Your task to perform on an android device: Show the shopping cart on target.com. Add razer nari to the cart on target.com, then select checkout. Image 0: 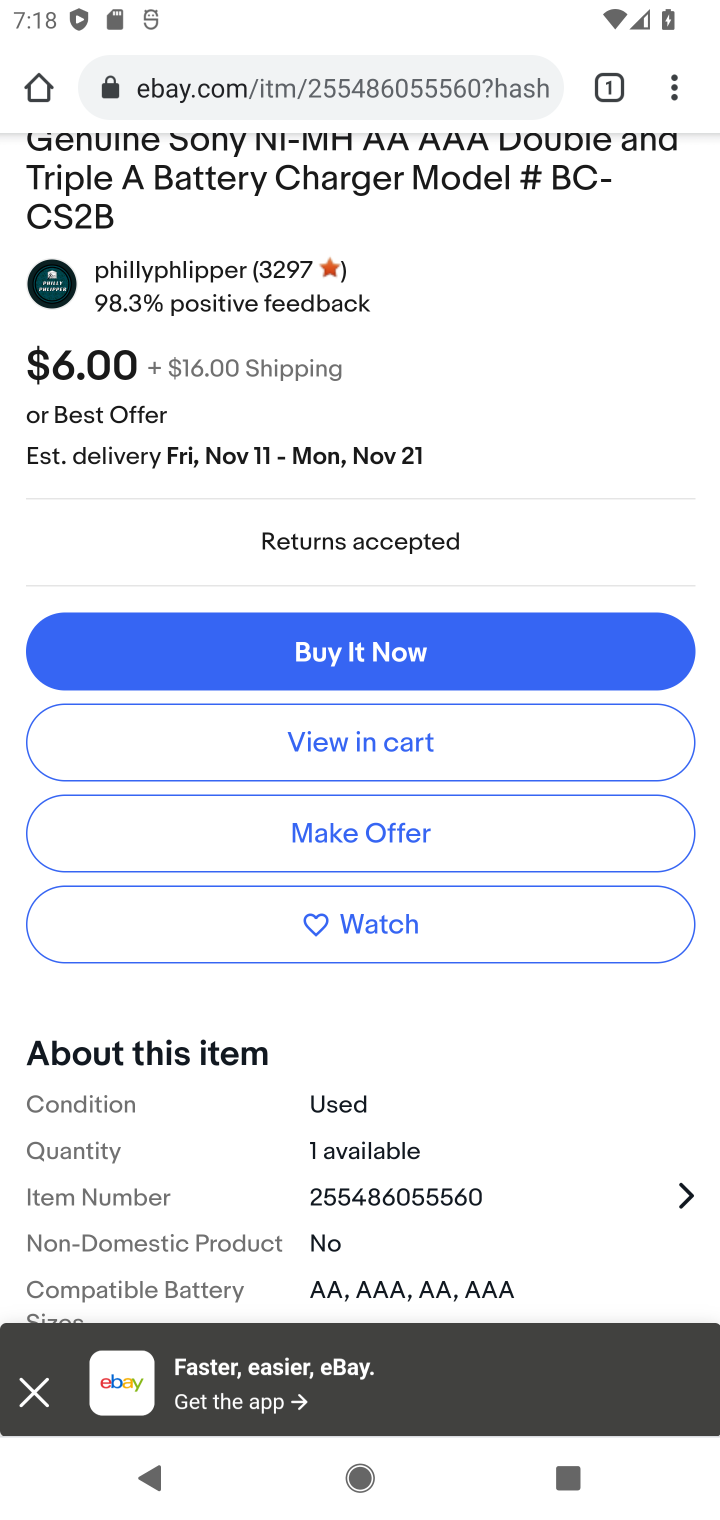
Step 0: press home button
Your task to perform on an android device: Show the shopping cart on target.com. Add razer nari to the cart on target.com, then select checkout. Image 1: 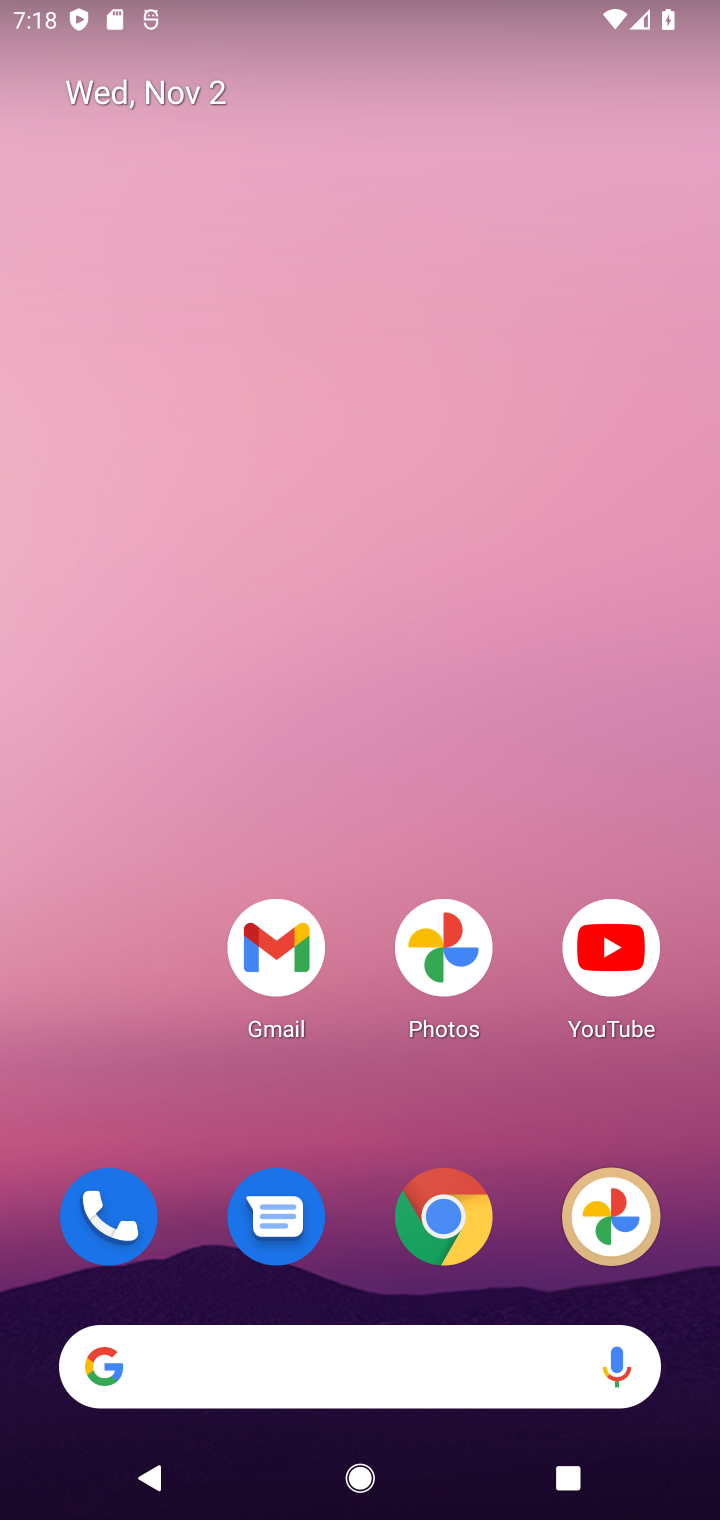
Step 1: click (445, 1222)
Your task to perform on an android device: Show the shopping cart on target.com. Add razer nari to the cart on target.com, then select checkout. Image 2: 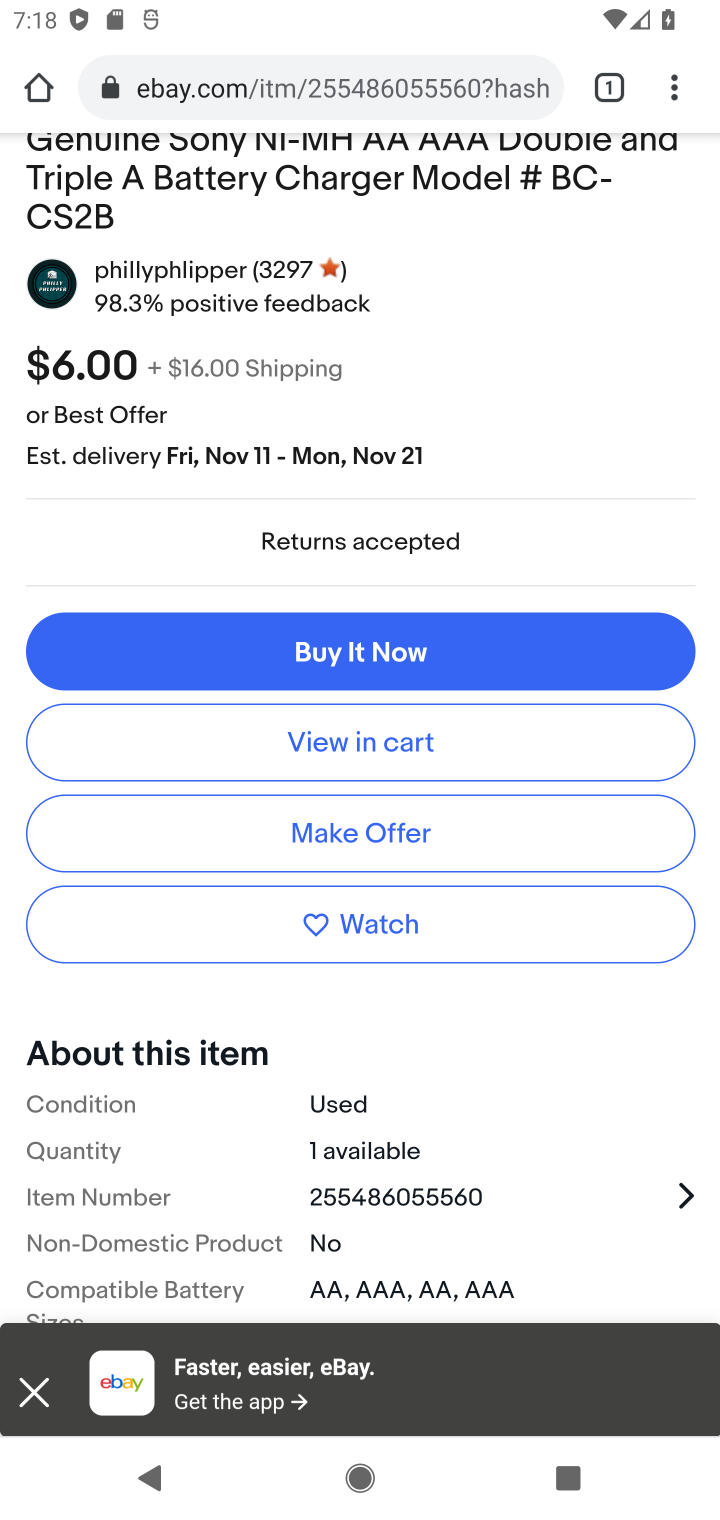
Step 2: click (307, 78)
Your task to perform on an android device: Show the shopping cart on target.com. Add razer nari to the cart on target.com, then select checkout. Image 3: 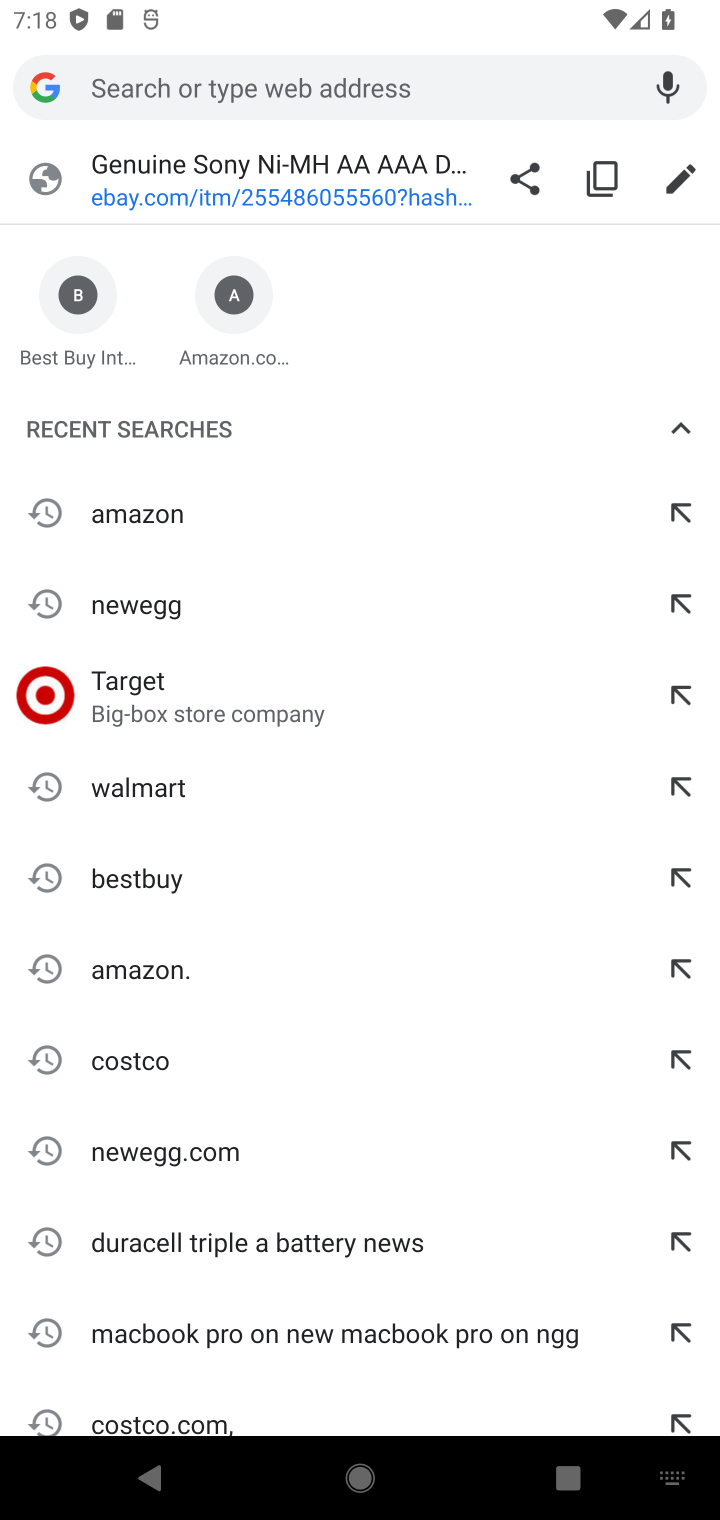
Step 3: type "target.com"
Your task to perform on an android device: Show the shopping cart on target.com. Add razer nari to the cart on target.com, then select checkout. Image 4: 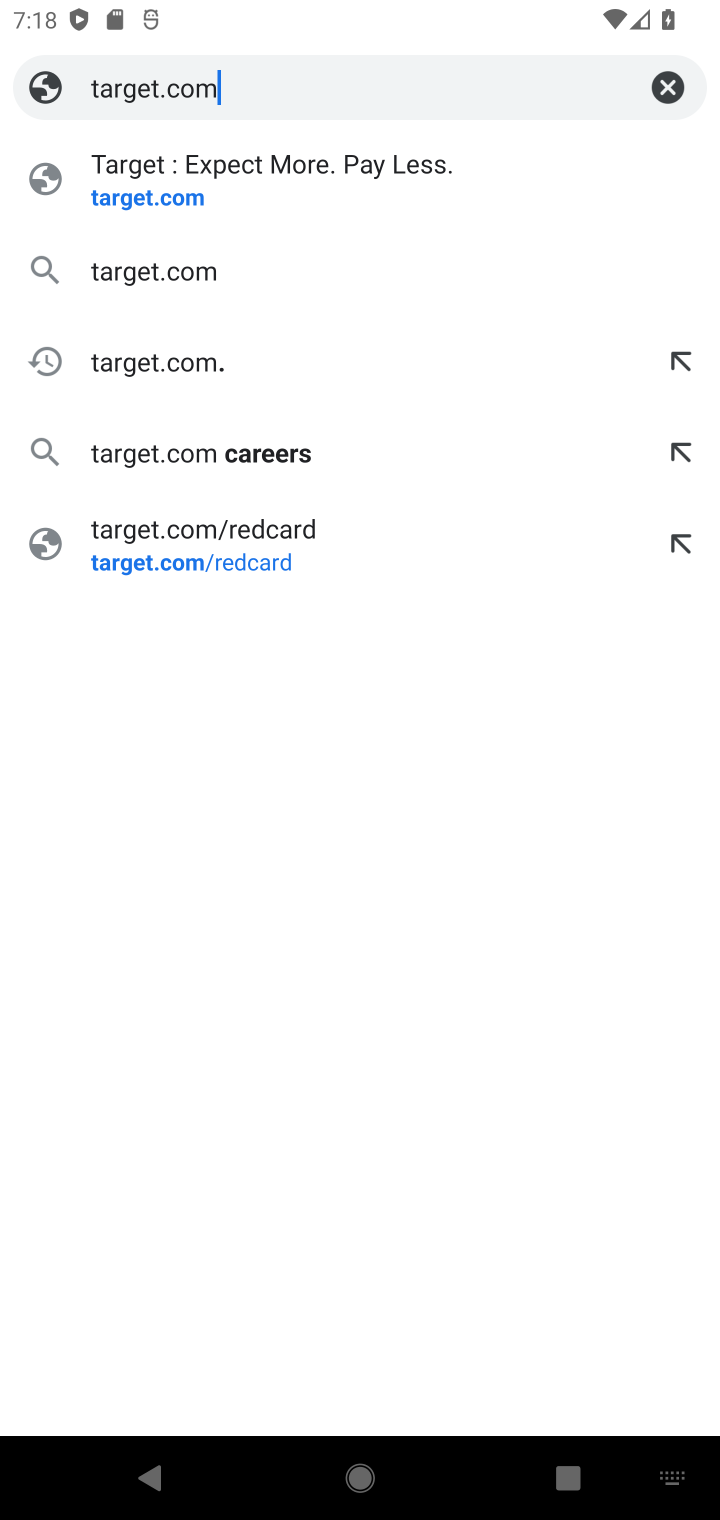
Step 4: click (426, 163)
Your task to perform on an android device: Show the shopping cart on target.com. Add razer nari to the cart on target.com, then select checkout. Image 5: 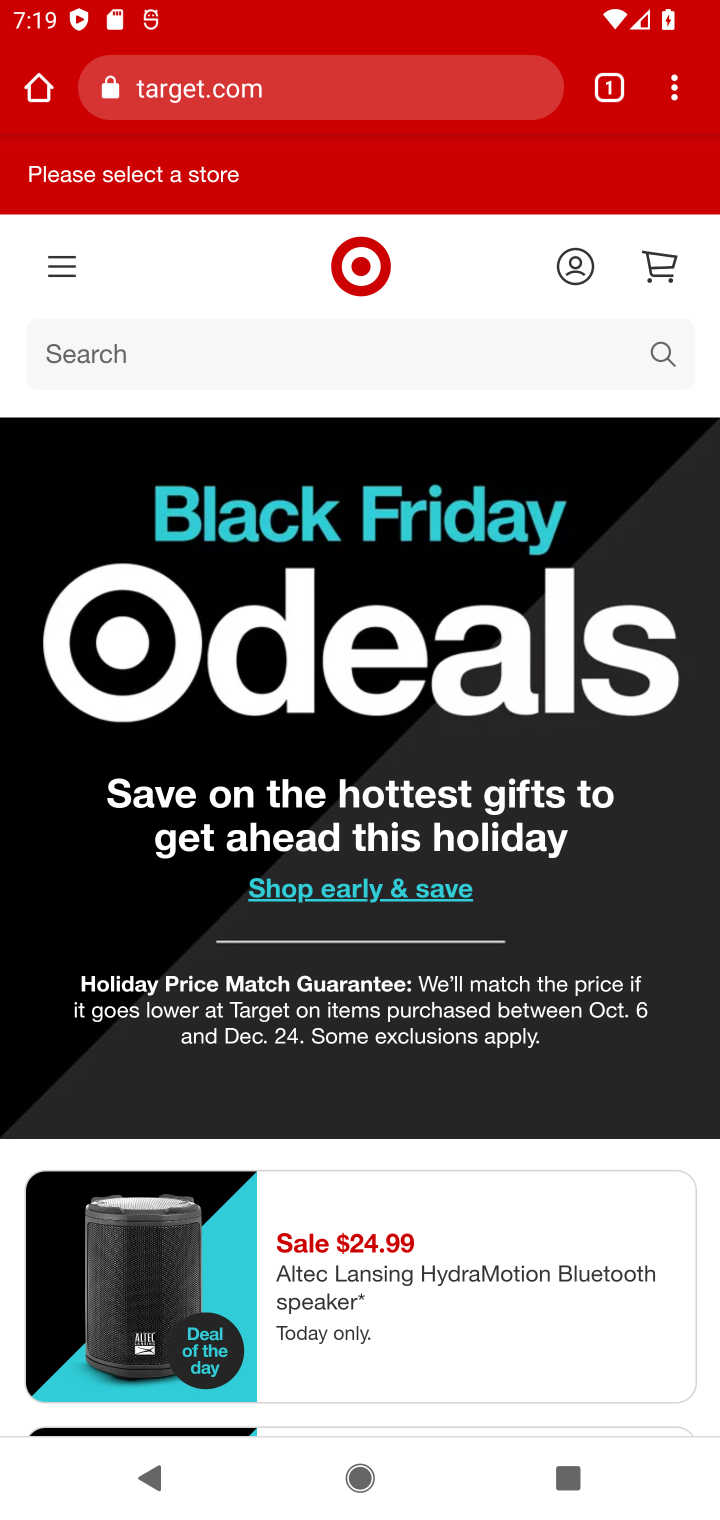
Step 5: click (305, 343)
Your task to perform on an android device: Show the shopping cart on target.com. Add razer nari to the cart on target.com, then select checkout. Image 6: 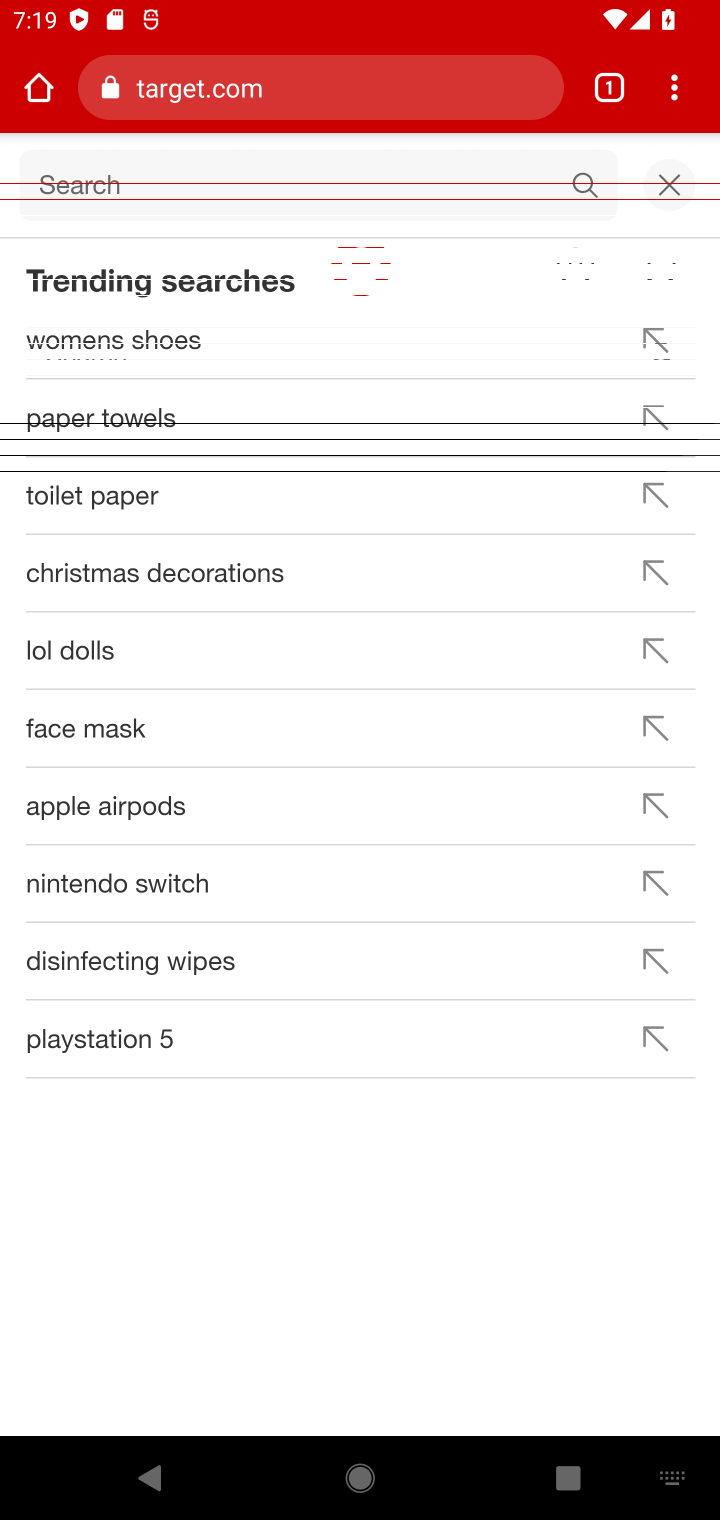
Step 6: type "razer nari"
Your task to perform on an android device: Show the shopping cart on target.com. Add razer nari to the cart on target.com, then select checkout. Image 7: 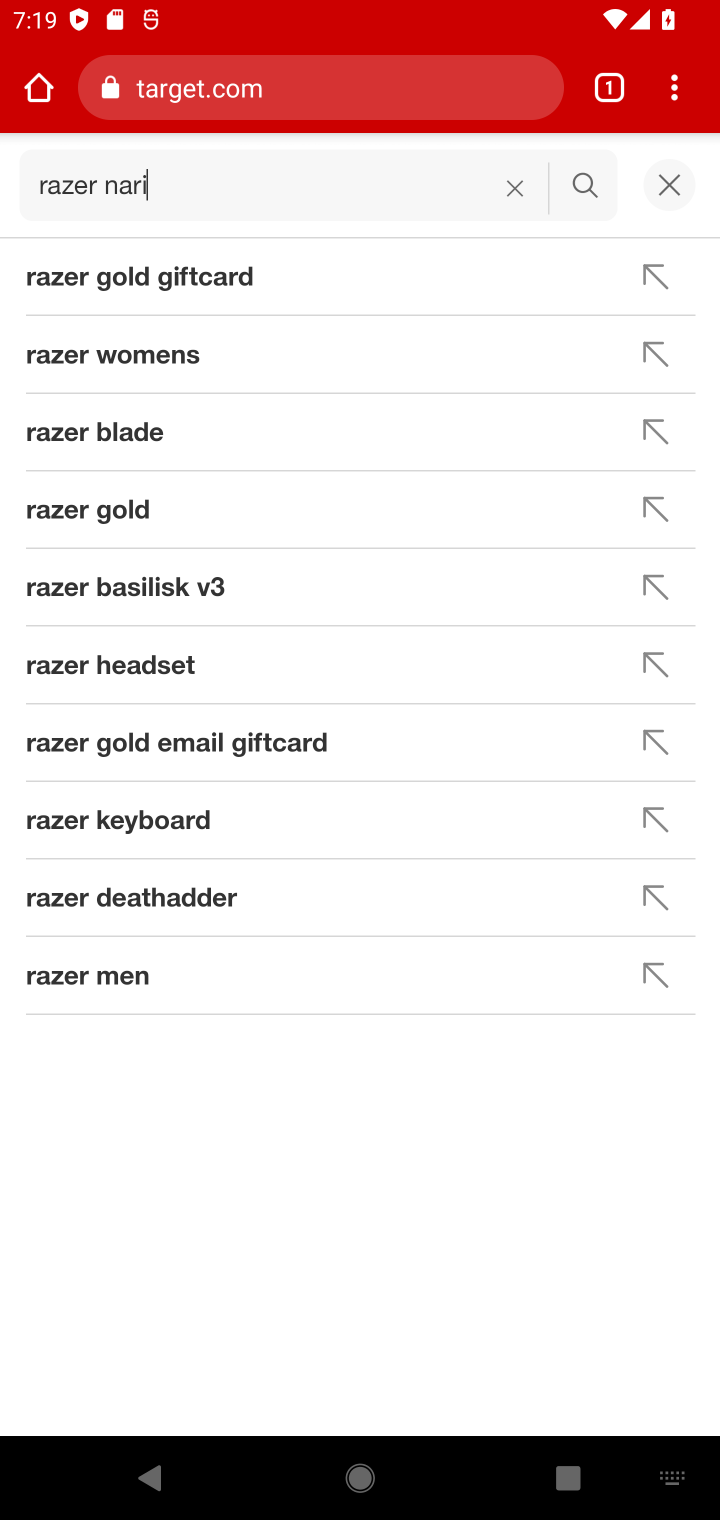
Step 7: press enter
Your task to perform on an android device: Show the shopping cart on target.com. Add razer nari to the cart on target.com, then select checkout. Image 8: 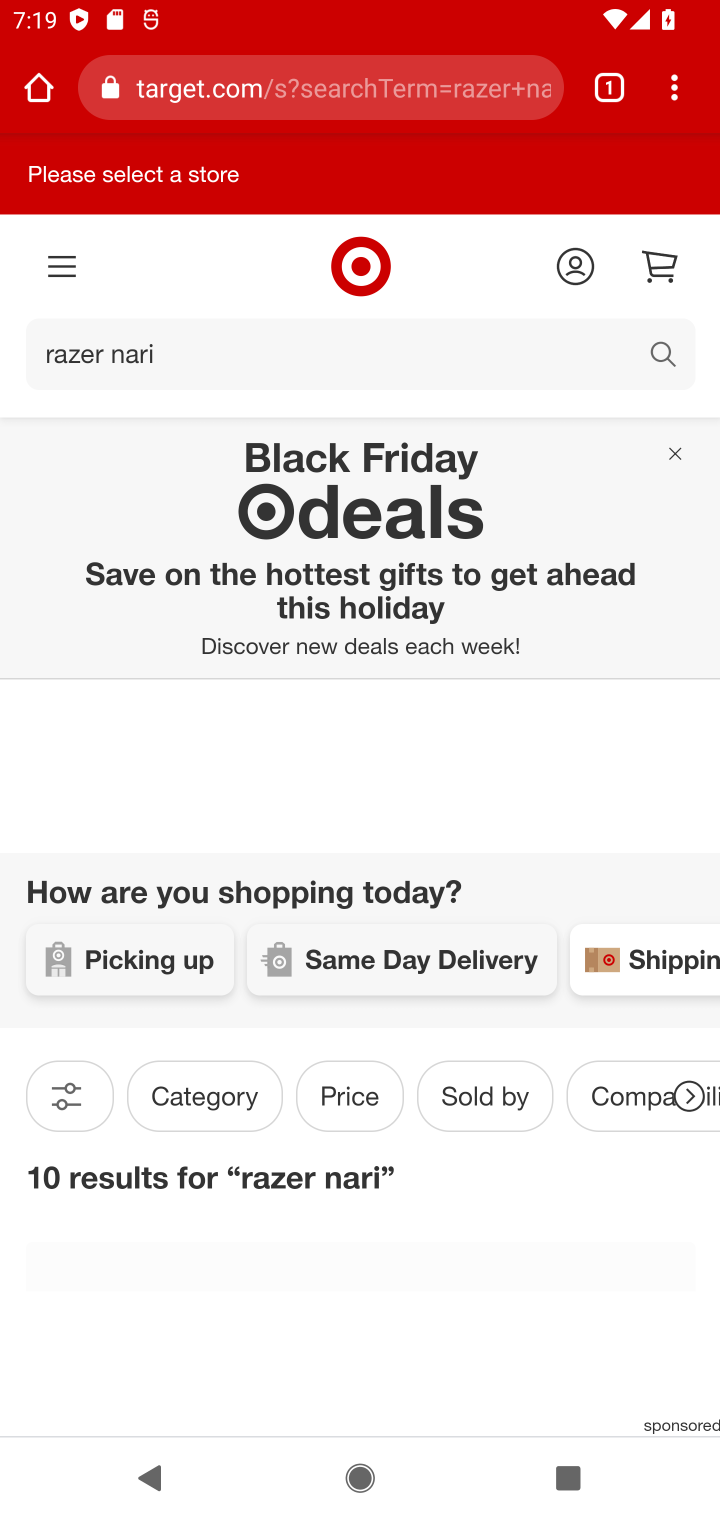
Step 8: drag from (306, 1226) to (56, 153)
Your task to perform on an android device: Show the shopping cart on target.com. Add razer nari to the cart on target.com, then select checkout. Image 9: 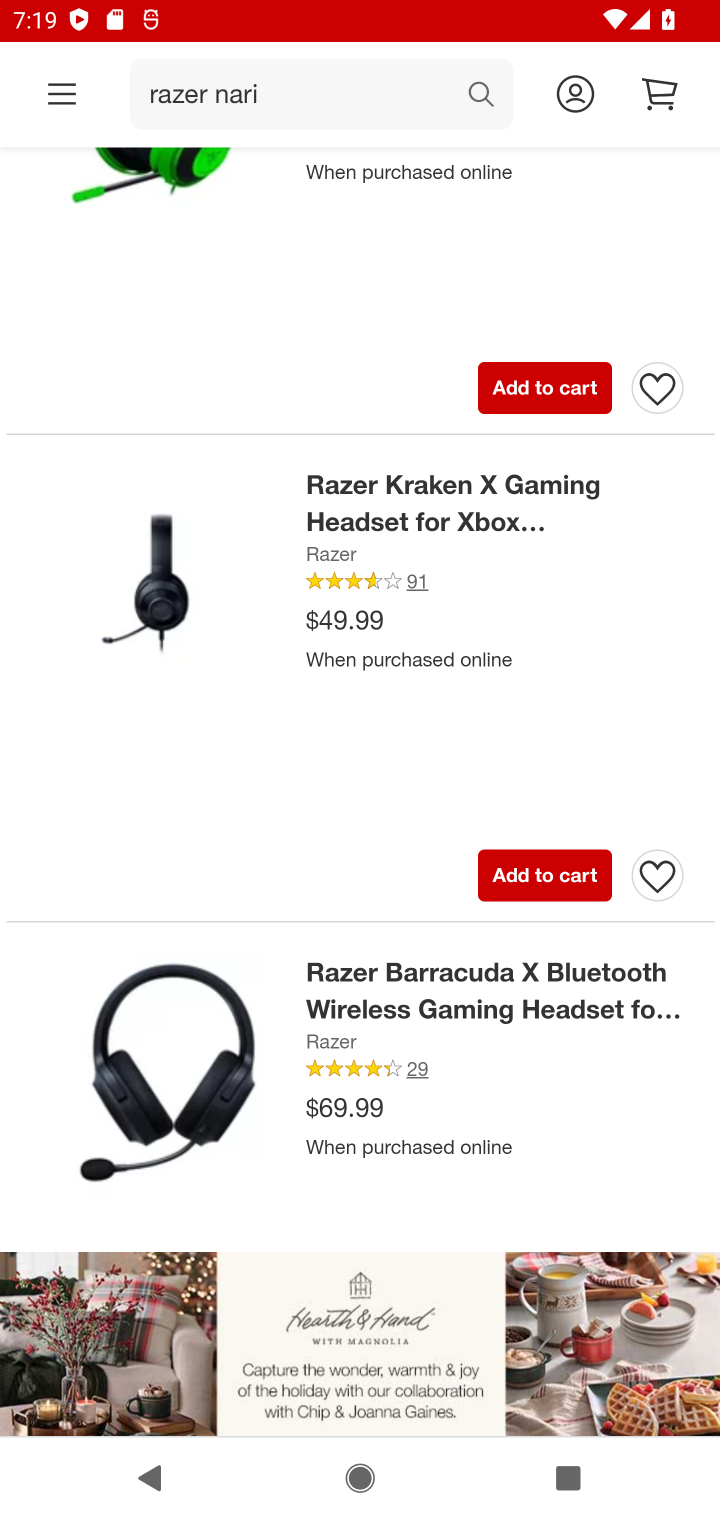
Step 9: drag from (195, 295) to (180, 762)
Your task to perform on an android device: Show the shopping cart on target.com. Add razer nari to the cart on target.com, then select checkout. Image 10: 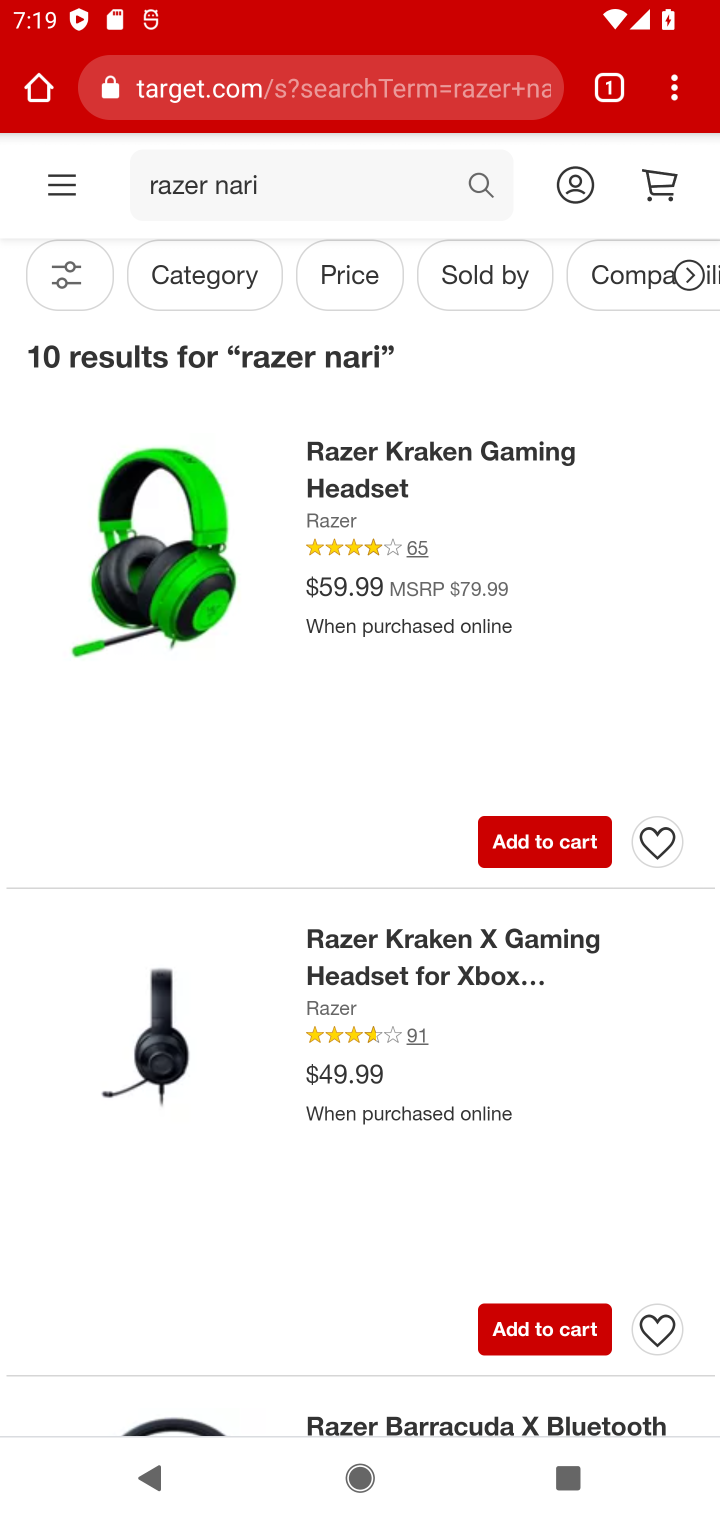
Step 10: drag from (286, 920) to (168, 72)
Your task to perform on an android device: Show the shopping cart on target.com. Add razer nari to the cart on target.com, then select checkout. Image 11: 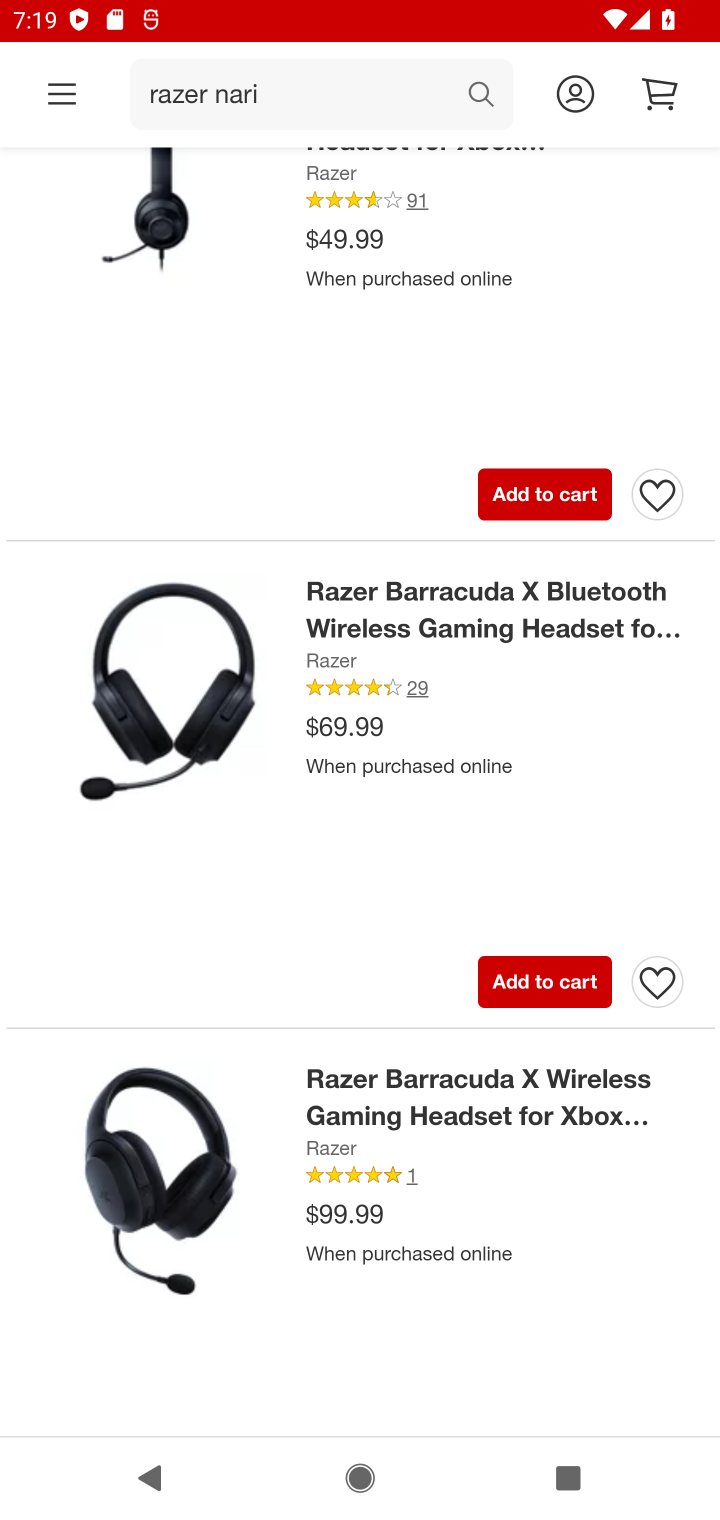
Step 11: drag from (211, 395) to (183, 1421)
Your task to perform on an android device: Show the shopping cart on target.com. Add razer nari to the cart on target.com, then select checkout. Image 12: 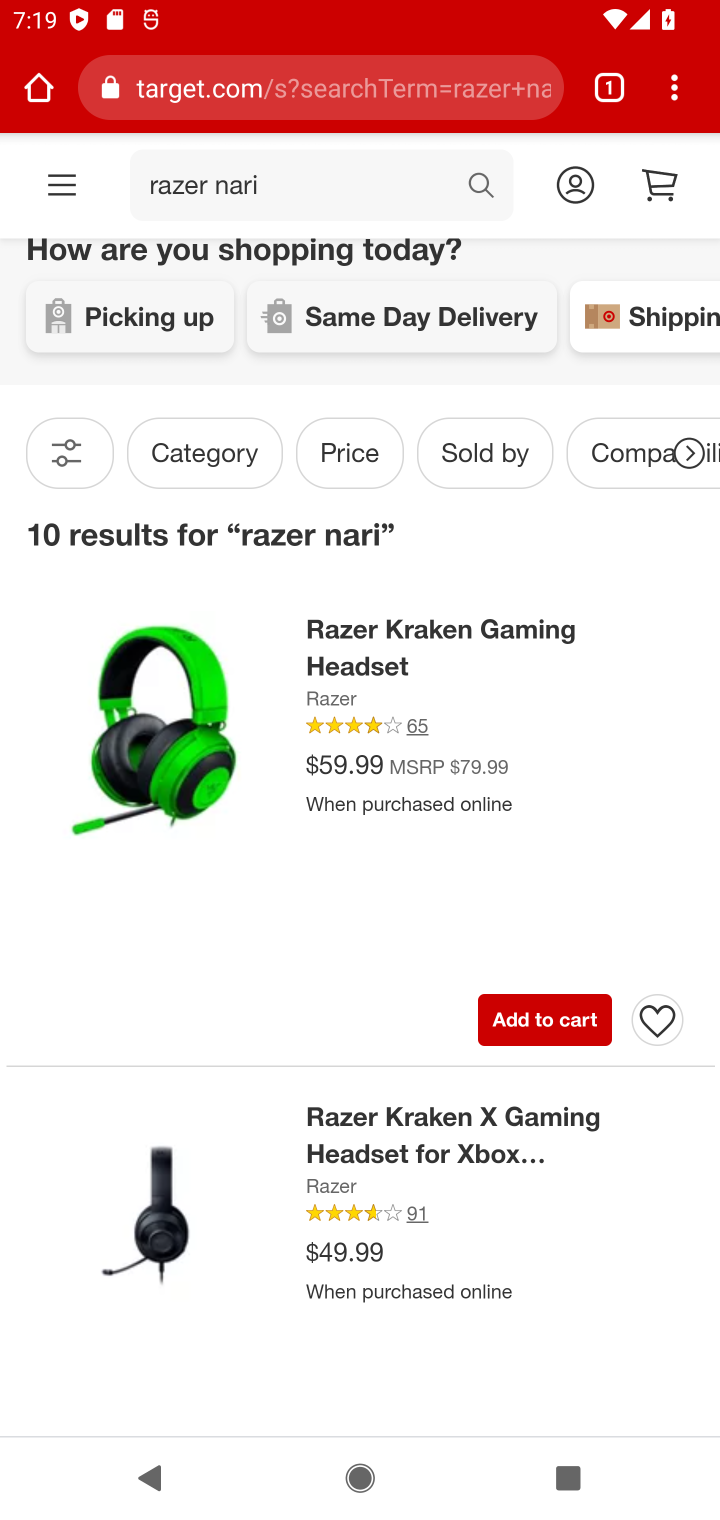
Step 12: click (173, 713)
Your task to perform on an android device: Show the shopping cart on target.com. Add razer nari to the cart on target.com, then select checkout. Image 13: 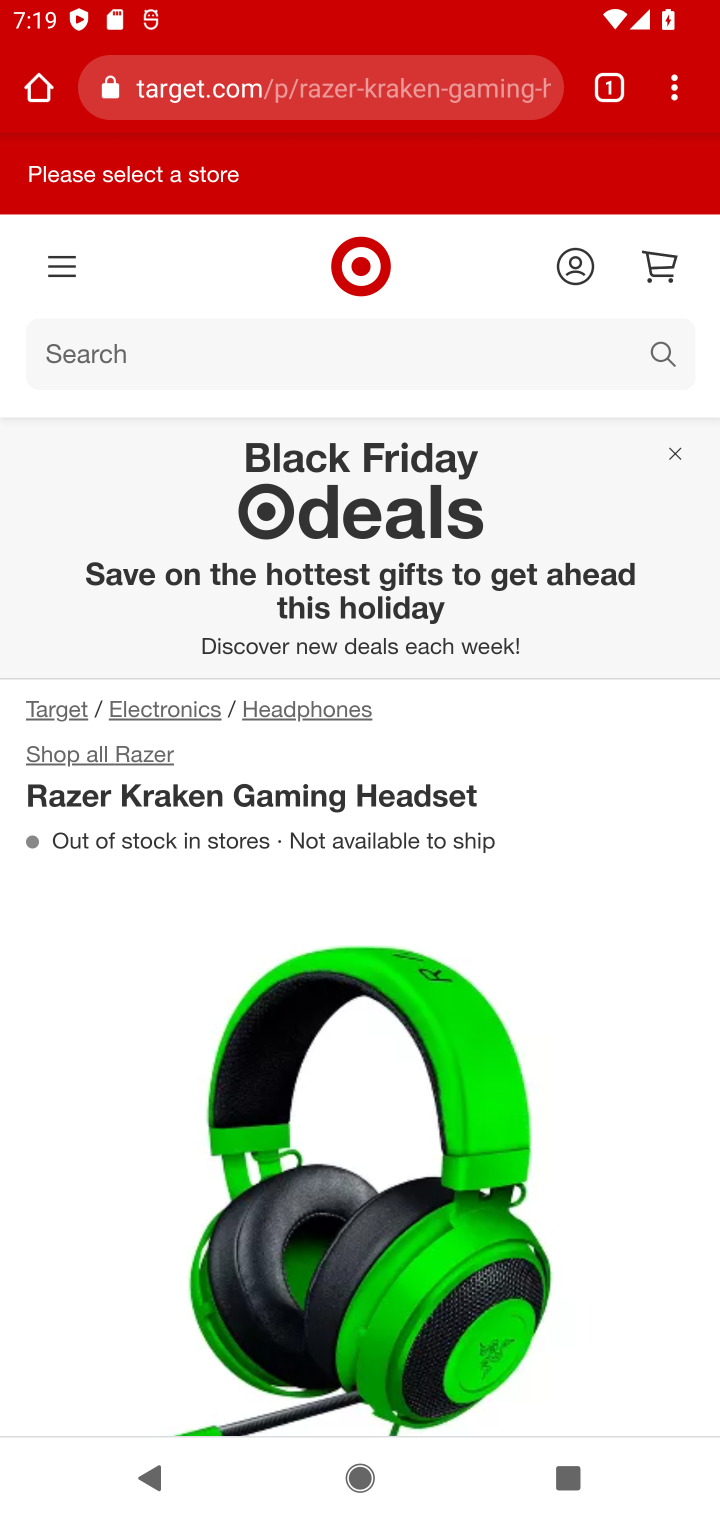
Step 13: drag from (642, 1260) to (433, 83)
Your task to perform on an android device: Show the shopping cart on target.com. Add razer nari to the cart on target.com, then select checkout. Image 14: 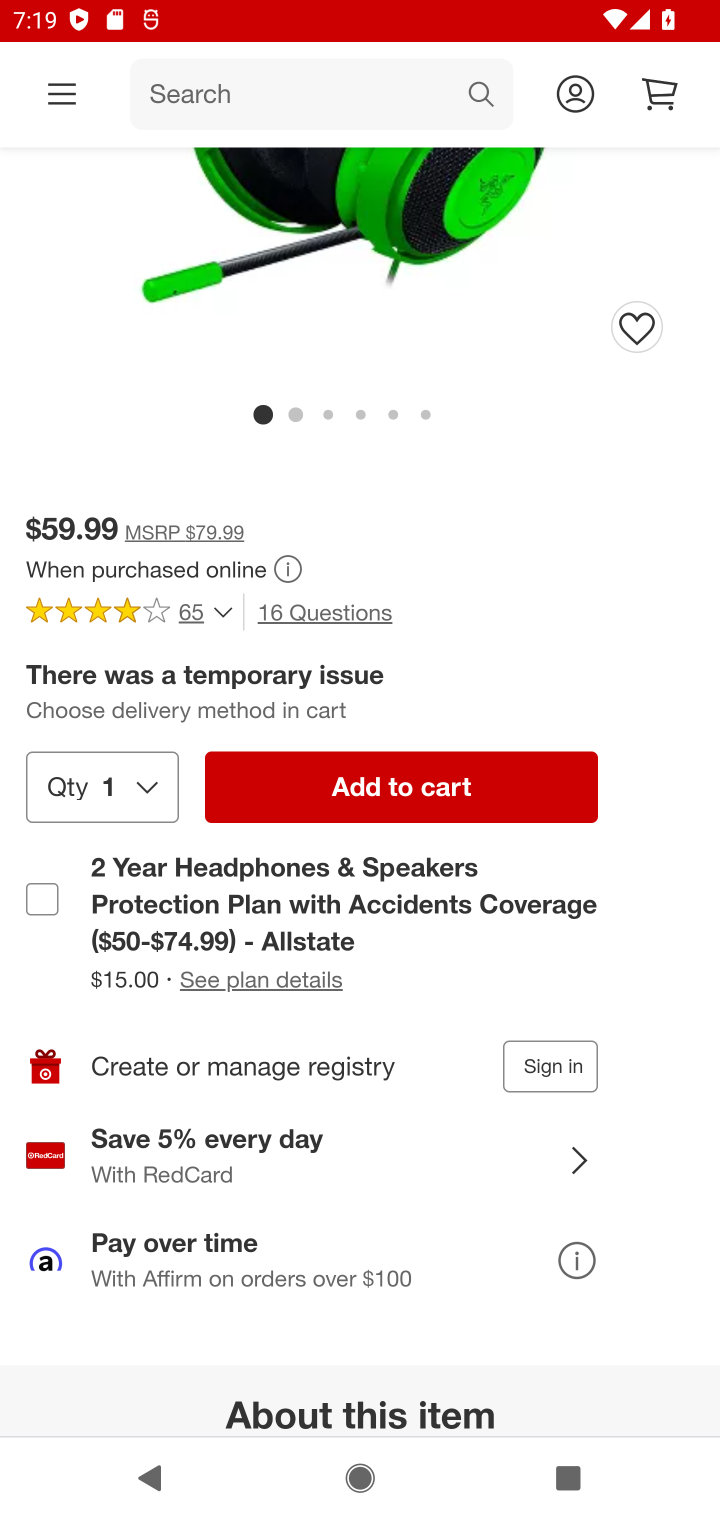
Step 14: click (439, 788)
Your task to perform on an android device: Show the shopping cart on target.com. Add razer nari to the cart on target.com, then select checkout. Image 15: 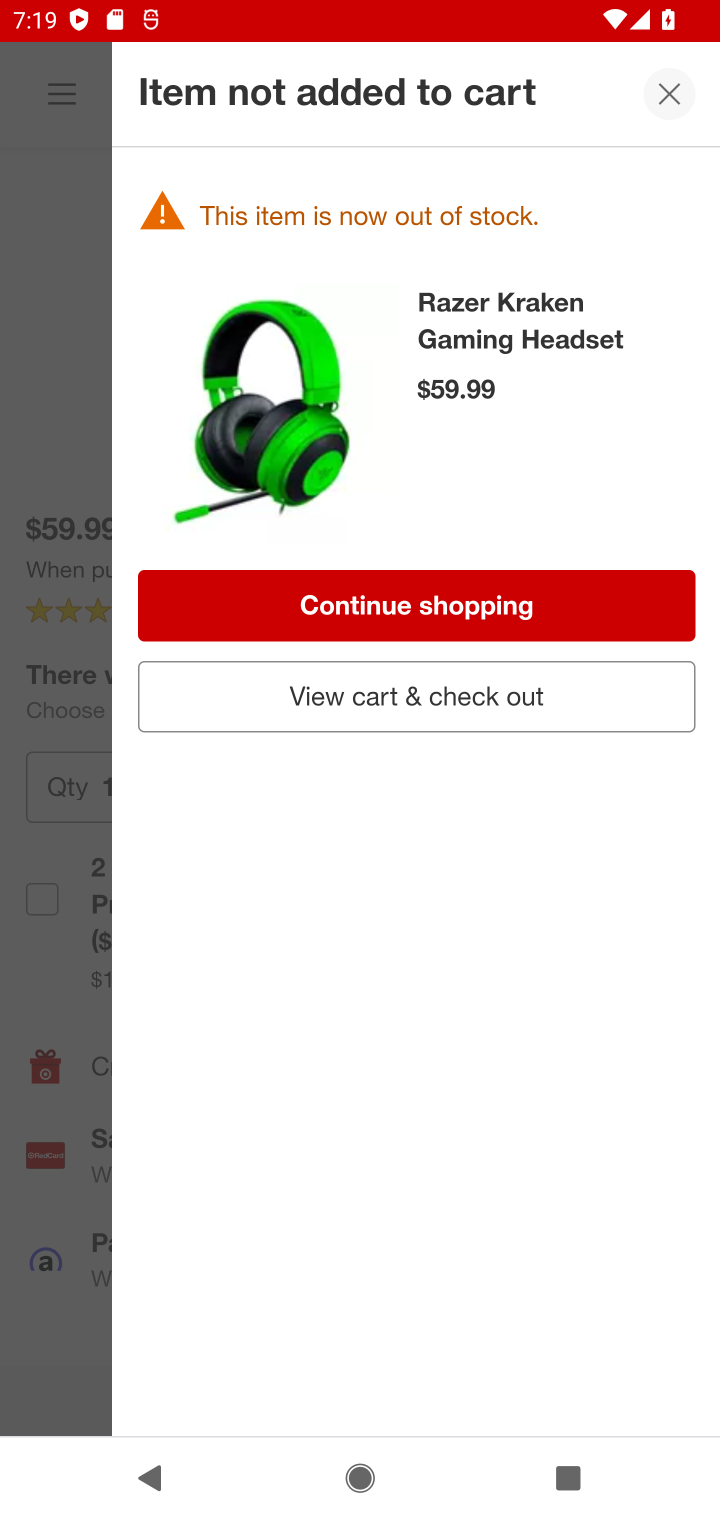
Step 15: click (537, 699)
Your task to perform on an android device: Show the shopping cart on target.com. Add razer nari to the cart on target.com, then select checkout. Image 16: 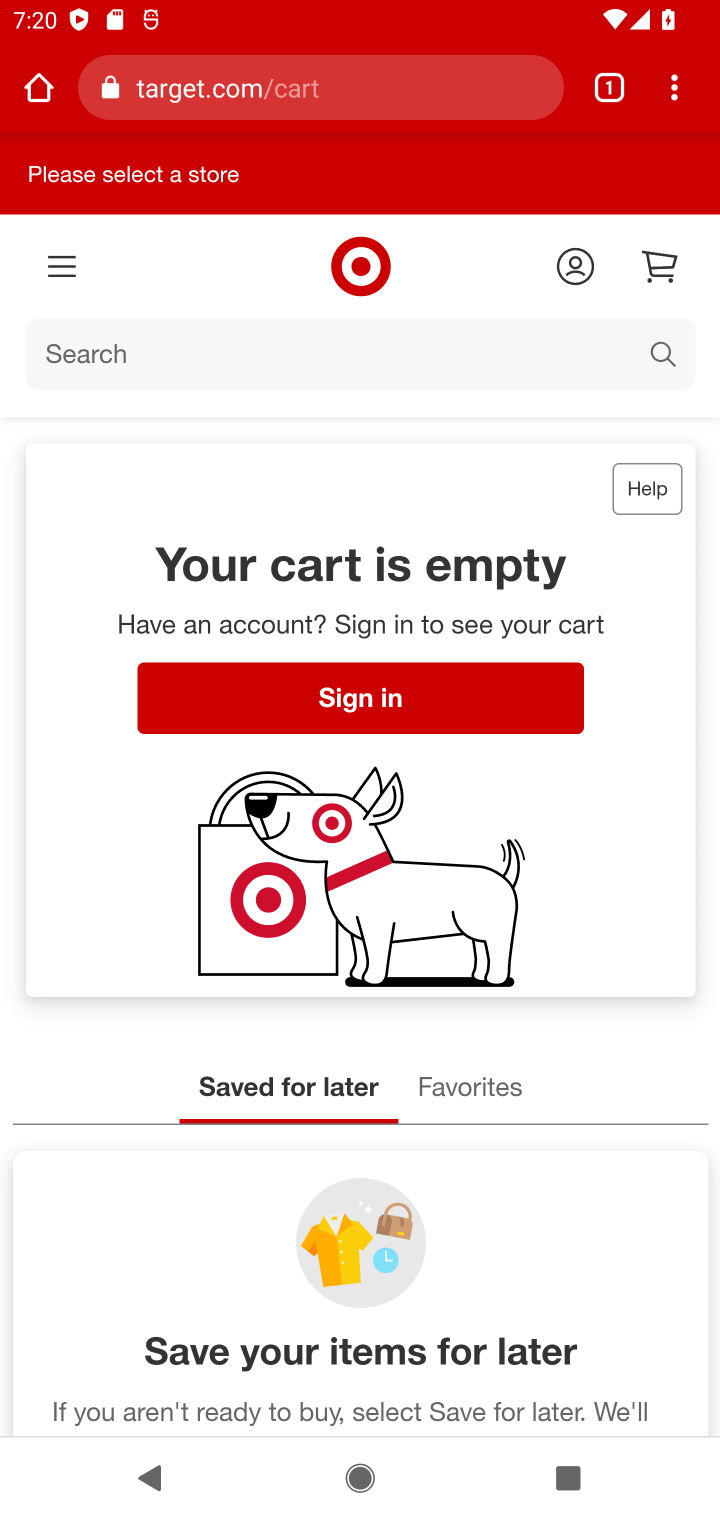
Step 16: task complete